Your task to perform on an android device: Open accessibility settings Image 0: 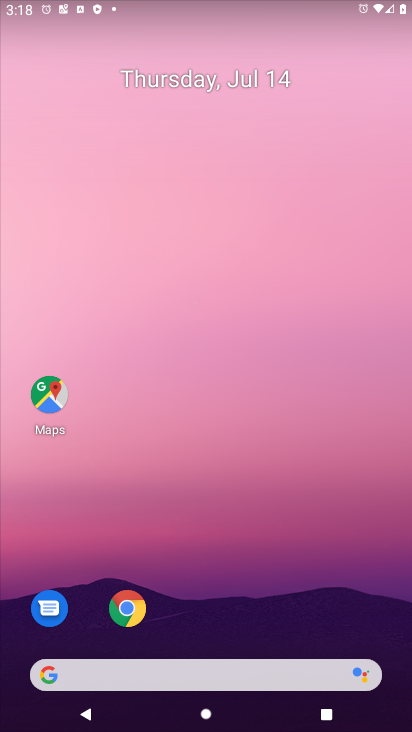
Step 0: drag from (400, 647) to (370, 109)
Your task to perform on an android device: Open accessibility settings Image 1: 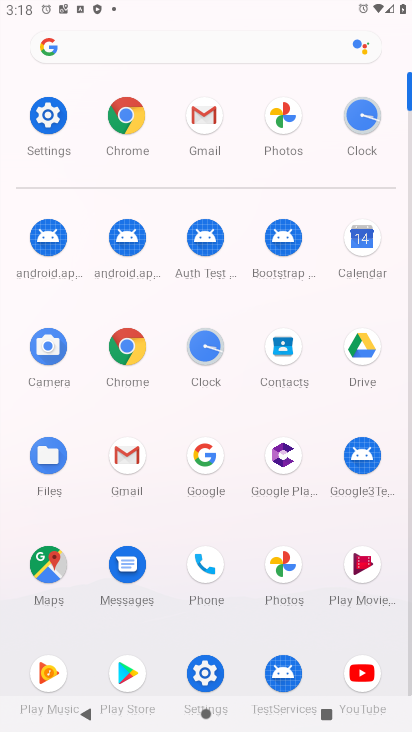
Step 1: click (203, 673)
Your task to perform on an android device: Open accessibility settings Image 2: 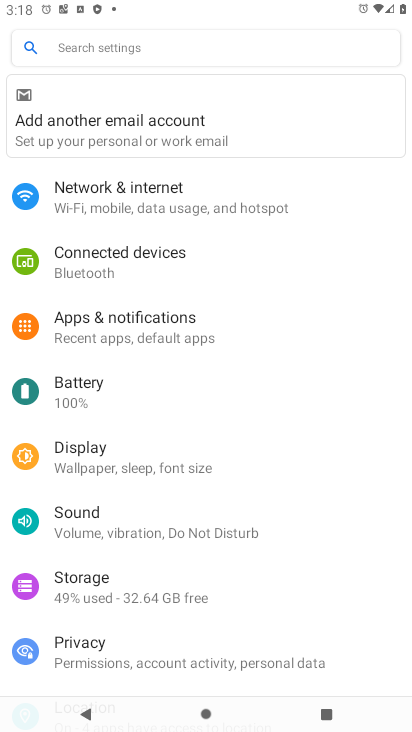
Step 2: drag from (331, 638) to (341, 200)
Your task to perform on an android device: Open accessibility settings Image 3: 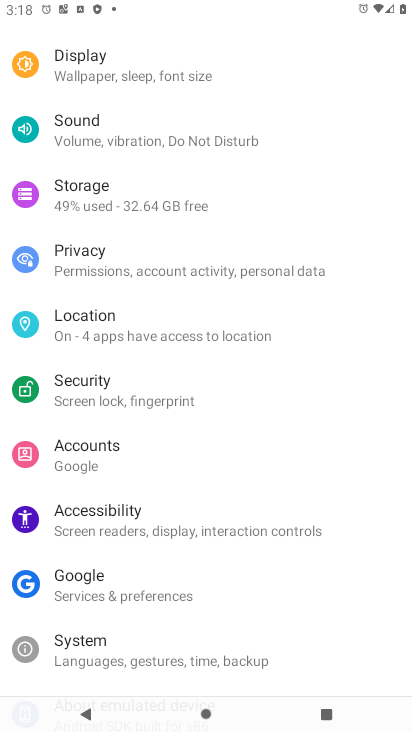
Step 3: click (66, 512)
Your task to perform on an android device: Open accessibility settings Image 4: 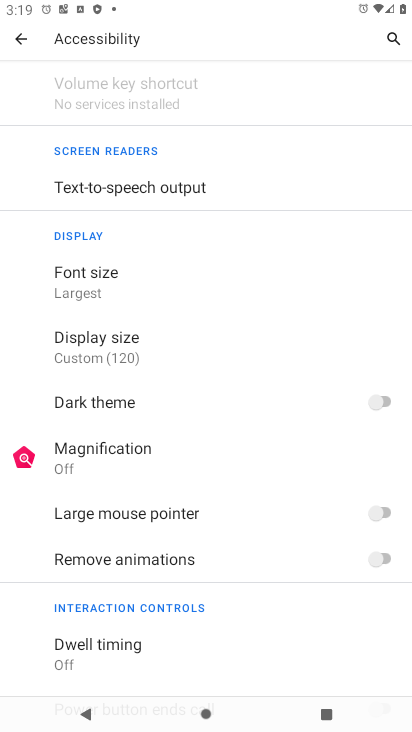
Step 4: task complete